Your task to perform on an android device: open the mobile data screen to see how much data has been used Image 0: 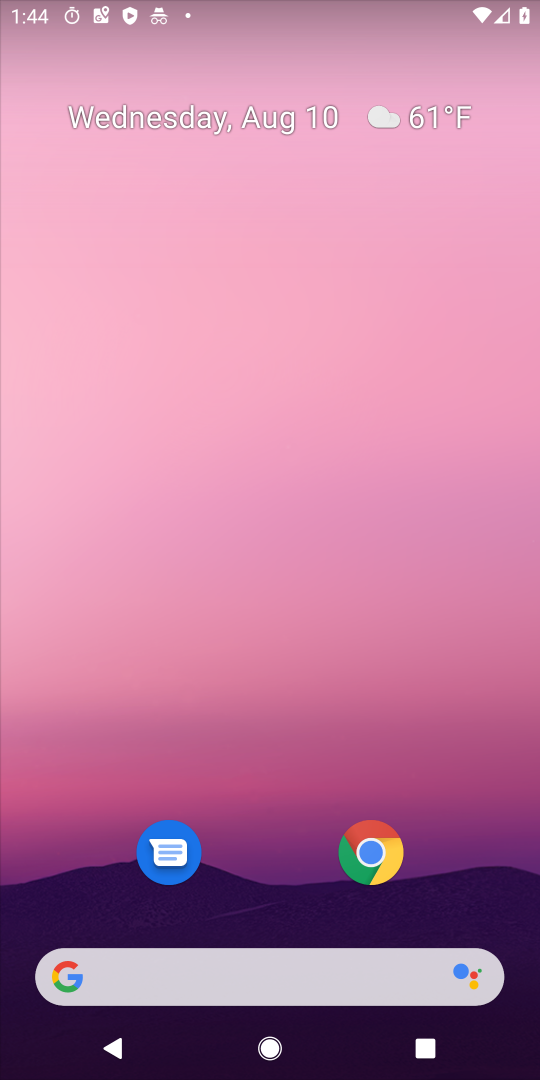
Step 0: drag from (234, 859) to (214, 170)
Your task to perform on an android device: open the mobile data screen to see how much data has been used Image 1: 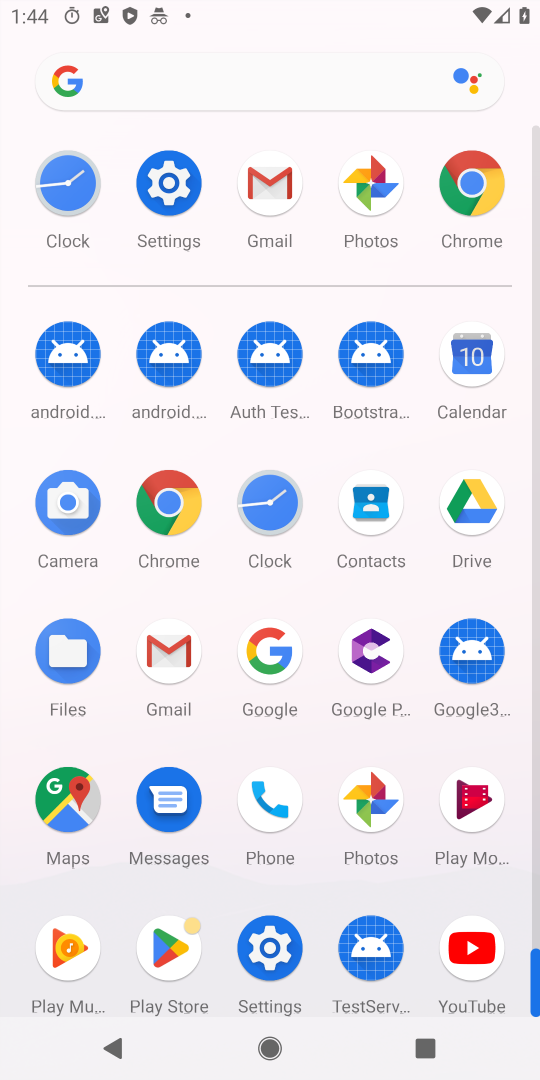
Step 1: click (277, 947)
Your task to perform on an android device: open the mobile data screen to see how much data has been used Image 2: 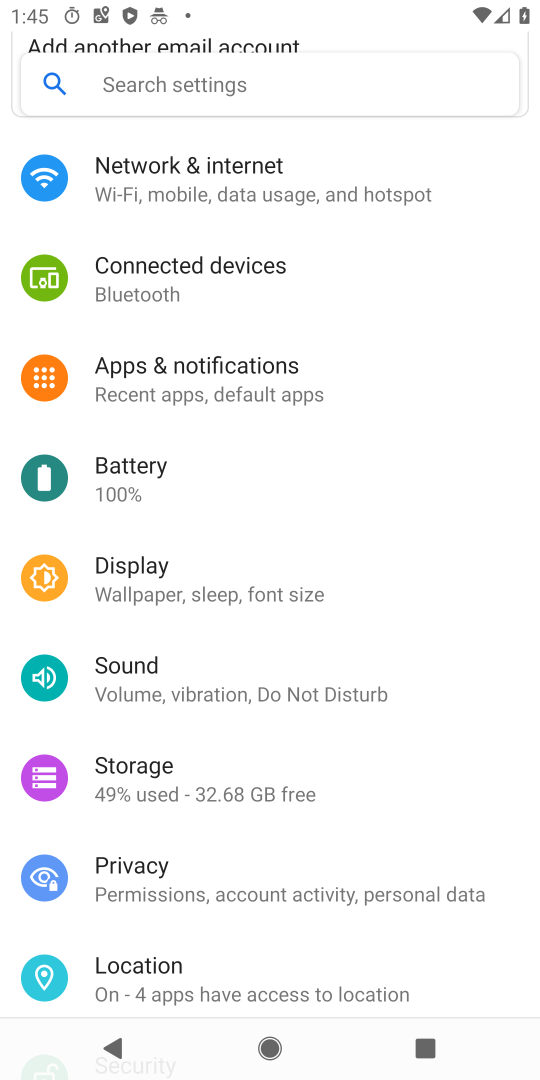
Step 2: click (229, 189)
Your task to perform on an android device: open the mobile data screen to see how much data has been used Image 3: 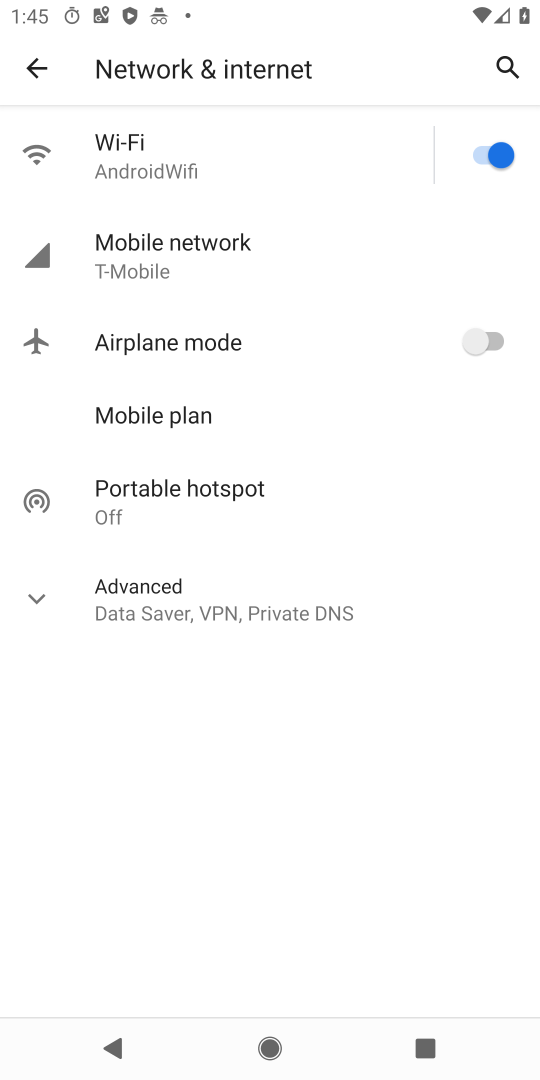
Step 3: click (146, 260)
Your task to perform on an android device: open the mobile data screen to see how much data has been used Image 4: 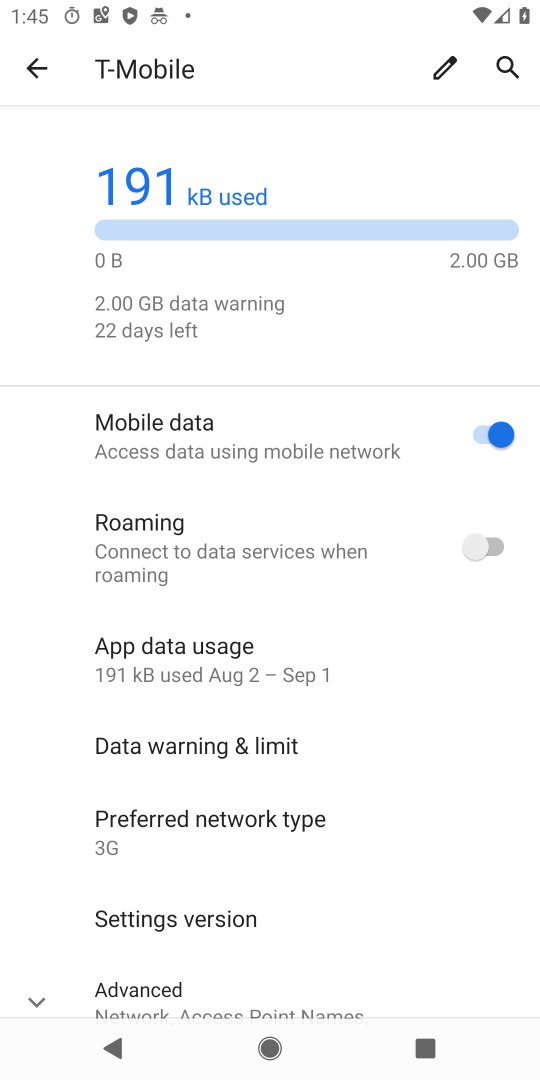
Step 4: task complete